Your task to perform on an android device: Open sound settings Image 0: 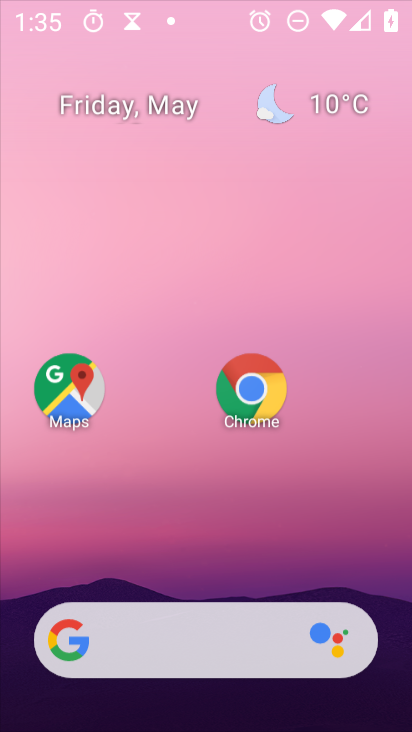
Step 0: click (346, 145)
Your task to perform on an android device: Open sound settings Image 1: 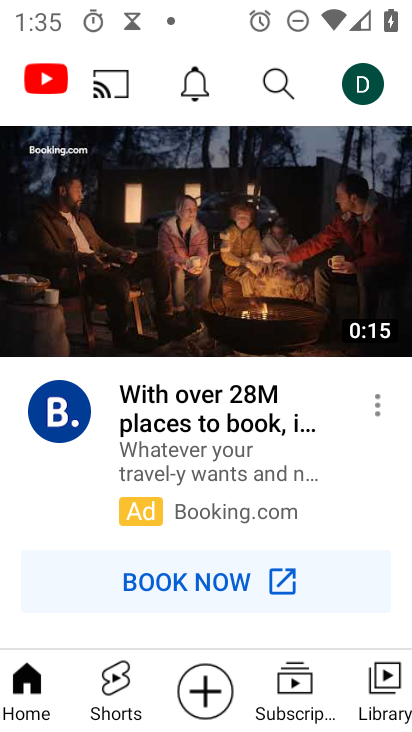
Step 1: press home button
Your task to perform on an android device: Open sound settings Image 2: 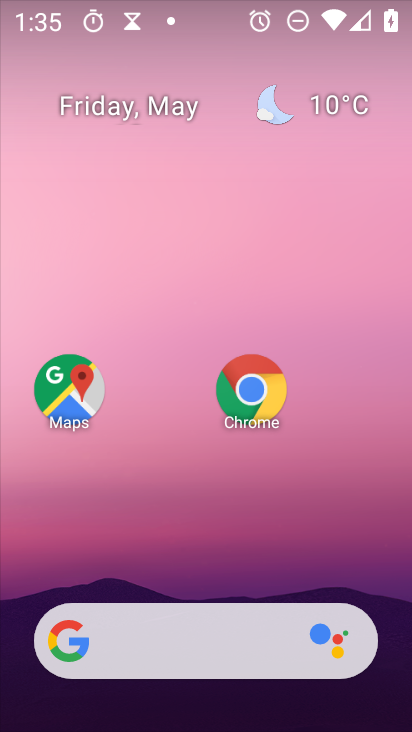
Step 2: drag from (184, 629) to (354, 62)
Your task to perform on an android device: Open sound settings Image 3: 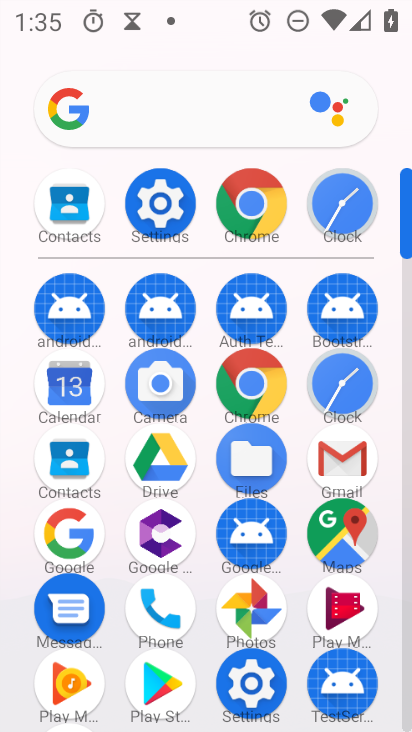
Step 3: click (161, 208)
Your task to perform on an android device: Open sound settings Image 4: 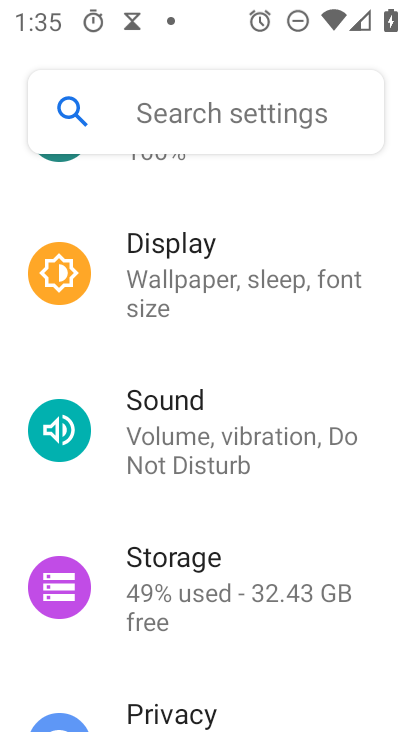
Step 4: click (158, 416)
Your task to perform on an android device: Open sound settings Image 5: 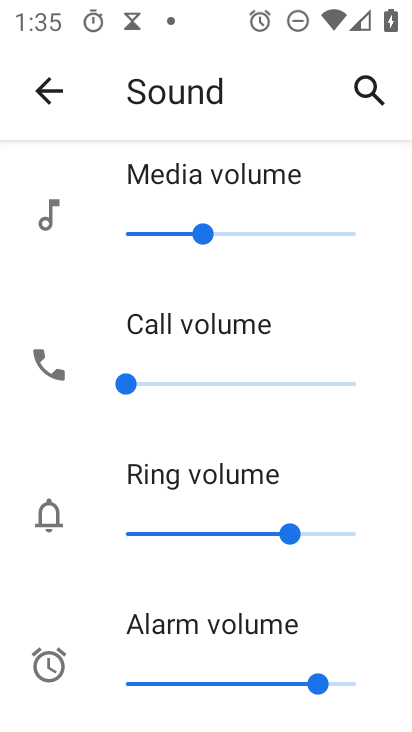
Step 5: task complete